Your task to perform on an android device: open chrome privacy settings Image 0: 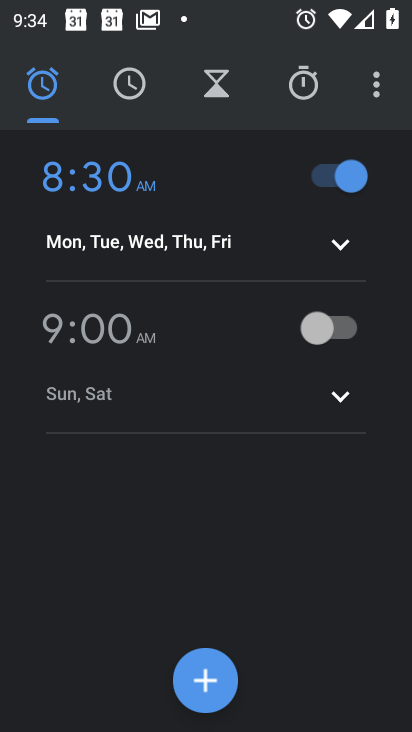
Step 0: press home button
Your task to perform on an android device: open chrome privacy settings Image 1: 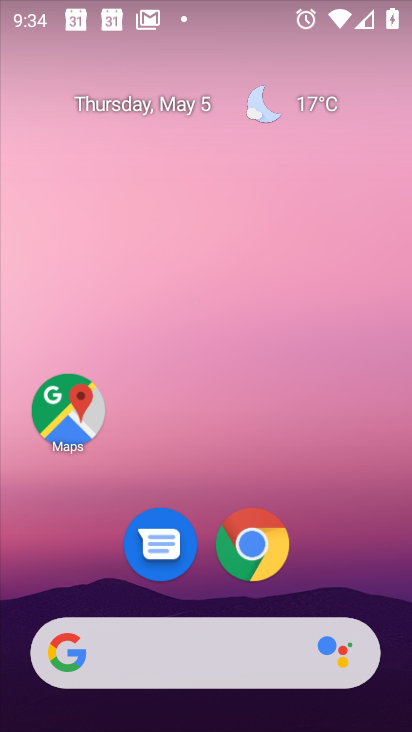
Step 1: click (249, 533)
Your task to perform on an android device: open chrome privacy settings Image 2: 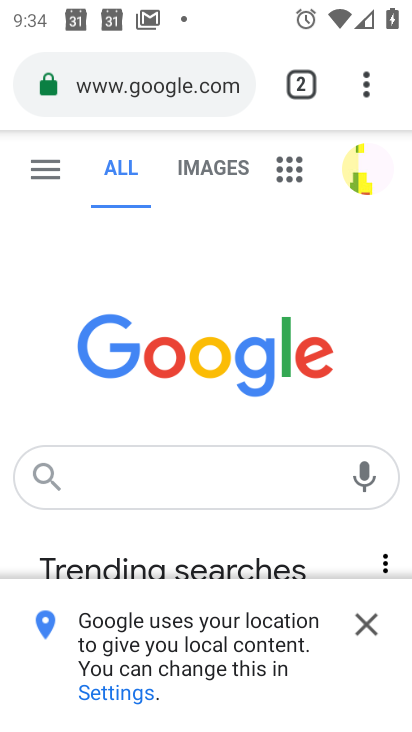
Step 2: click (376, 102)
Your task to perform on an android device: open chrome privacy settings Image 3: 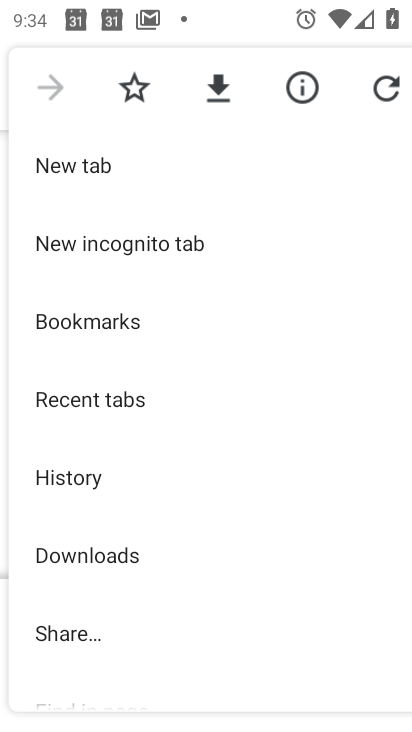
Step 3: drag from (190, 611) to (249, 388)
Your task to perform on an android device: open chrome privacy settings Image 4: 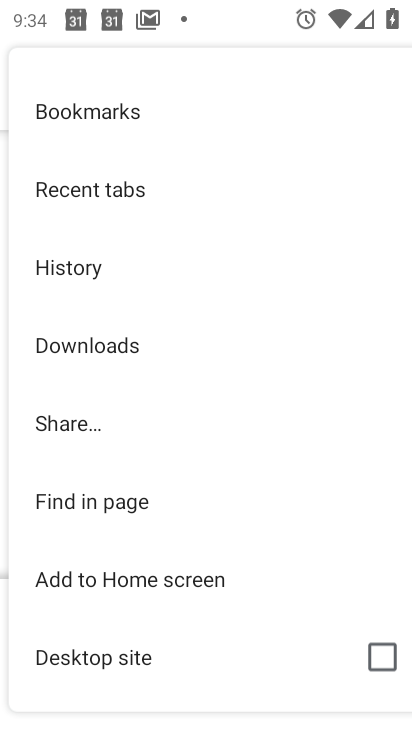
Step 4: drag from (122, 629) to (167, 322)
Your task to perform on an android device: open chrome privacy settings Image 5: 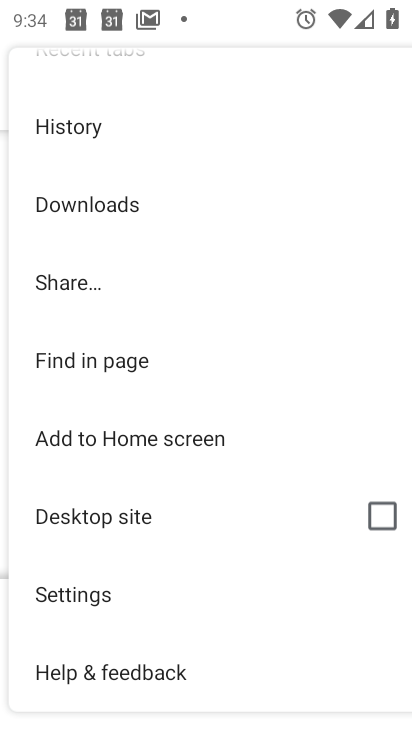
Step 5: click (106, 577)
Your task to perform on an android device: open chrome privacy settings Image 6: 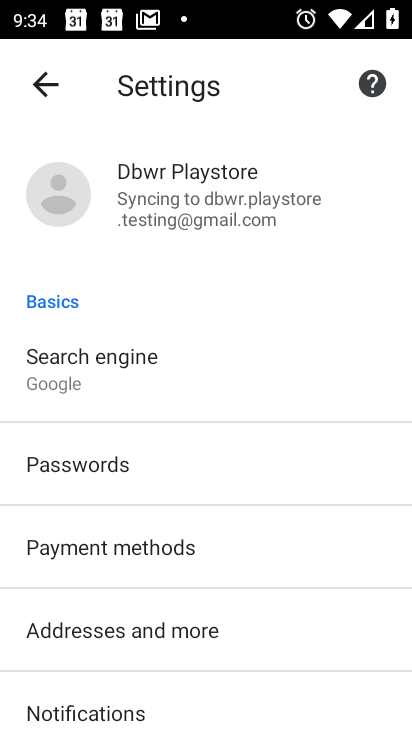
Step 6: drag from (106, 577) to (141, 347)
Your task to perform on an android device: open chrome privacy settings Image 7: 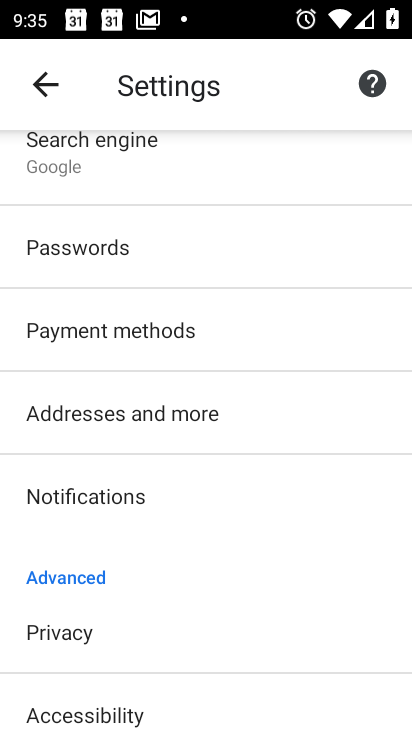
Step 7: click (103, 611)
Your task to perform on an android device: open chrome privacy settings Image 8: 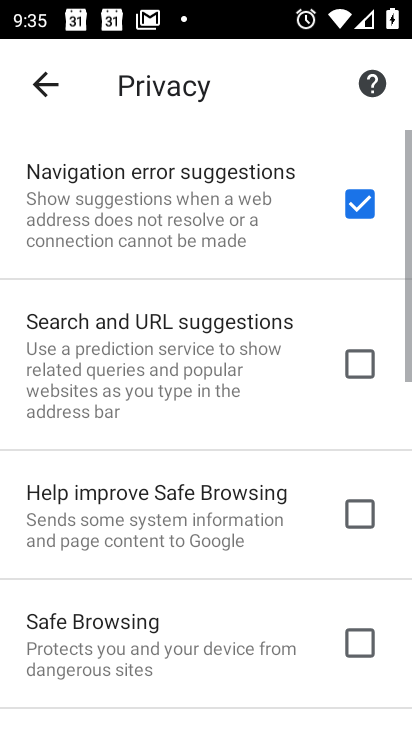
Step 8: task complete